Your task to perform on an android device: add a label to a message in the gmail app Image 0: 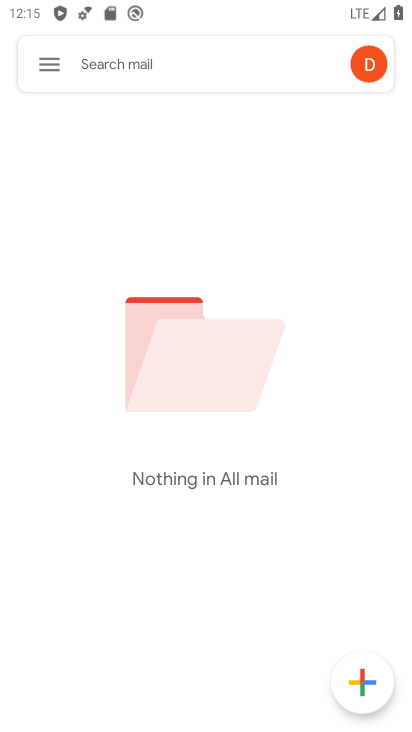
Step 0: press home button
Your task to perform on an android device: add a label to a message in the gmail app Image 1: 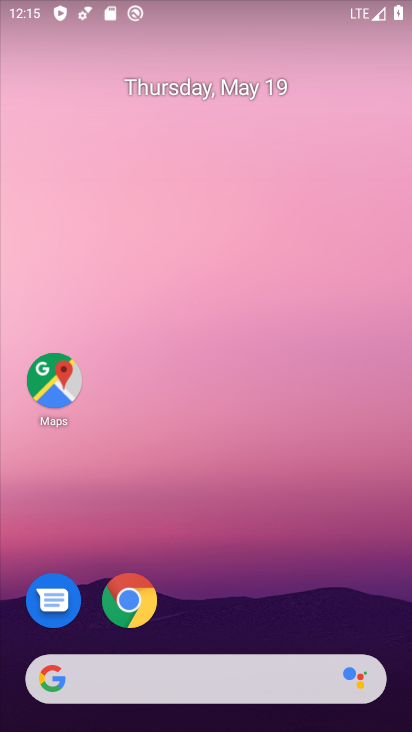
Step 1: drag from (251, 482) to (251, 42)
Your task to perform on an android device: add a label to a message in the gmail app Image 2: 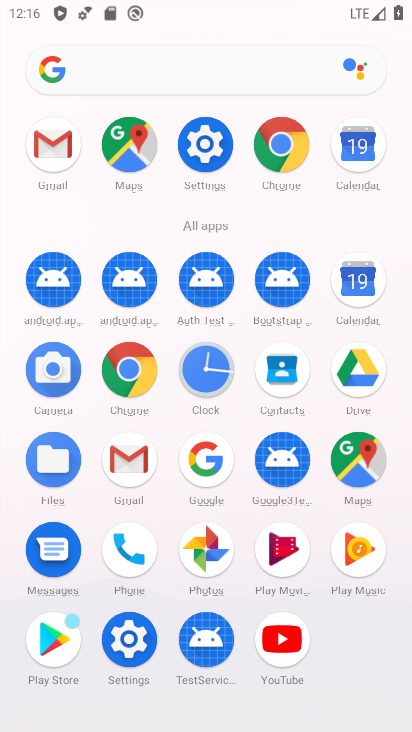
Step 2: click (130, 470)
Your task to perform on an android device: add a label to a message in the gmail app Image 3: 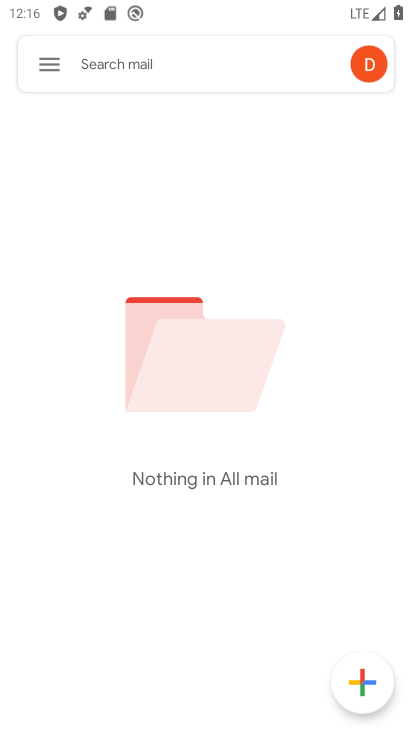
Step 3: click (44, 64)
Your task to perform on an android device: add a label to a message in the gmail app Image 4: 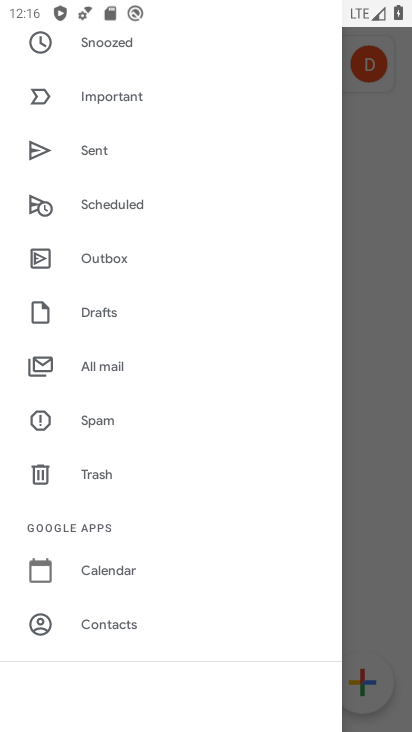
Step 4: task complete